Your task to perform on an android device: open a new tab in the chrome app Image 0: 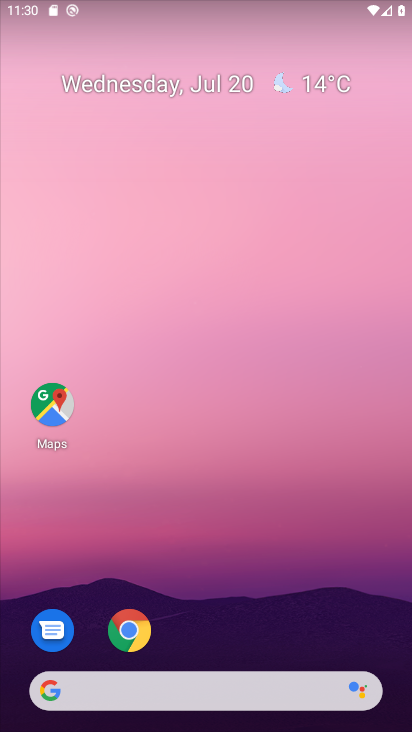
Step 0: click (139, 642)
Your task to perform on an android device: open a new tab in the chrome app Image 1: 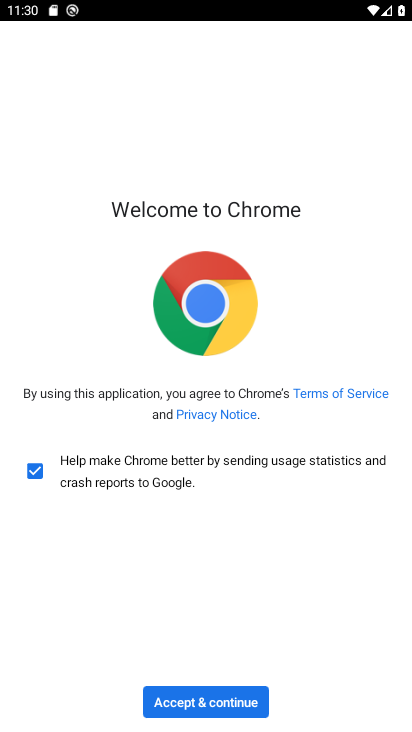
Step 1: click (193, 684)
Your task to perform on an android device: open a new tab in the chrome app Image 2: 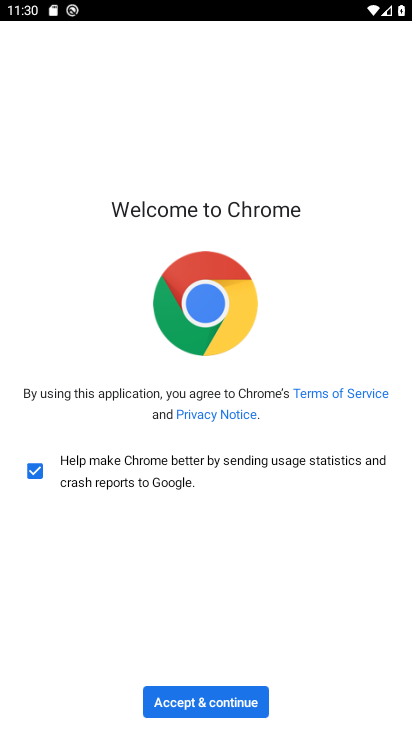
Step 2: click (196, 694)
Your task to perform on an android device: open a new tab in the chrome app Image 3: 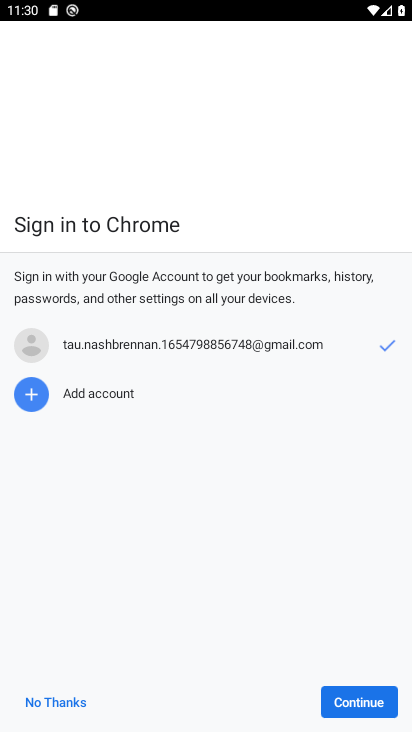
Step 3: click (349, 702)
Your task to perform on an android device: open a new tab in the chrome app Image 4: 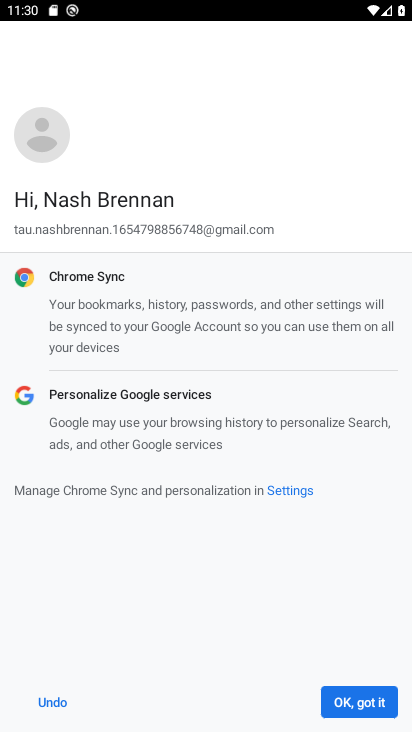
Step 4: click (349, 702)
Your task to perform on an android device: open a new tab in the chrome app Image 5: 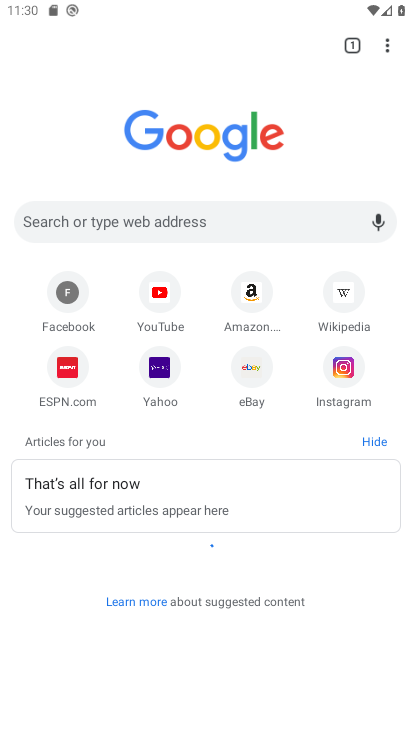
Step 5: click (353, 47)
Your task to perform on an android device: open a new tab in the chrome app Image 6: 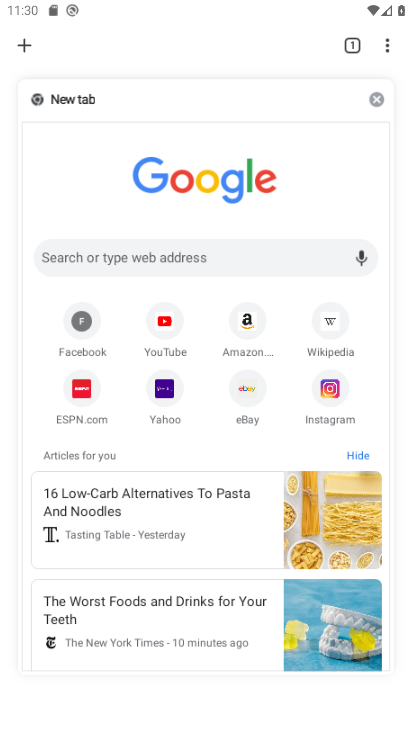
Step 6: click (26, 45)
Your task to perform on an android device: open a new tab in the chrome app Image 7: 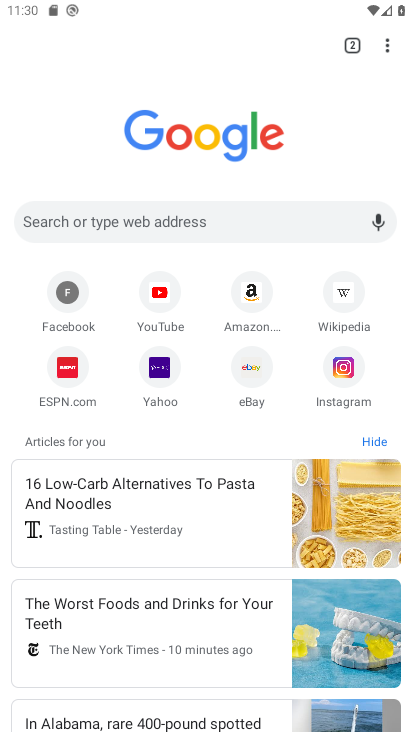
Step 7: task complete